Your task to perform on an android device: open app "Google Find My Device" Image 0: 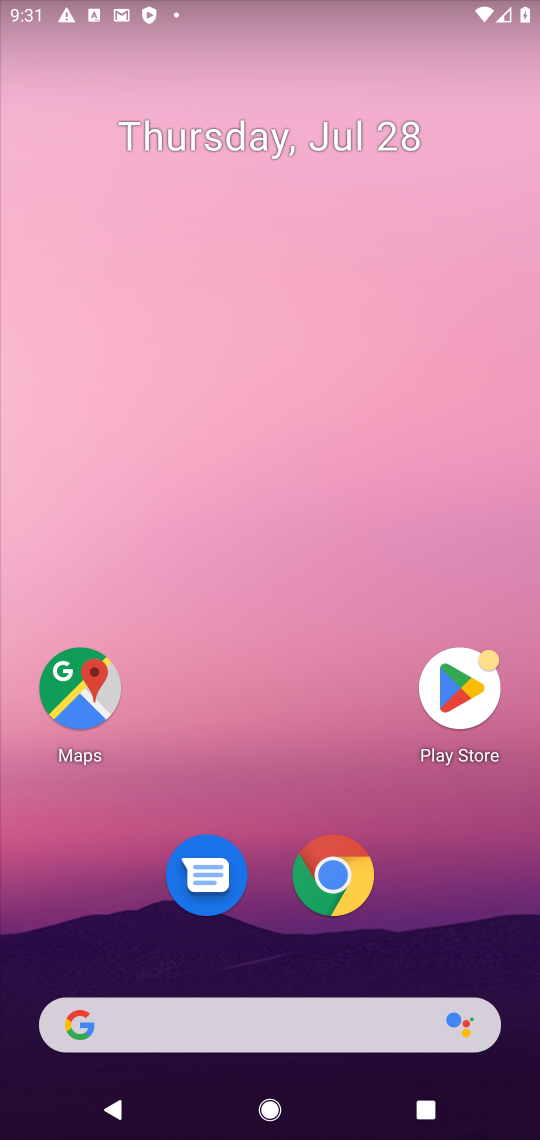
Step 0: drag from (330, 669) to (323, 32)
Your task to perform on an android device: open app "Google Find My Device" Image 1: 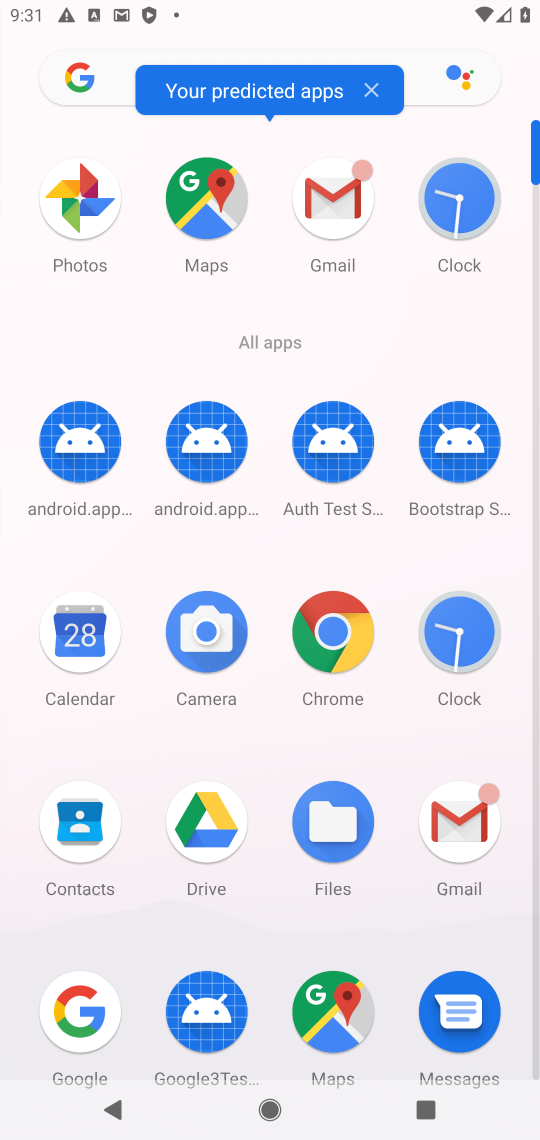
Step 1: drag from (260, 737) to (258, 143)
Your task to perform on an android device: open app "Google Find My Device" Image 2: 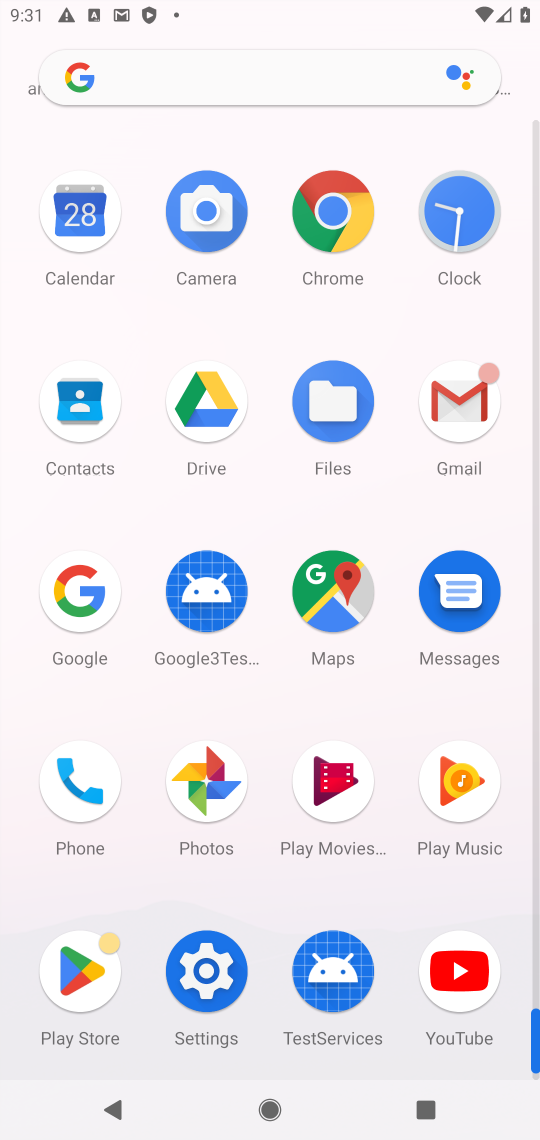
Step 2: click (90, 976)
Your task to perform on an android device: open app "Google Find My Device" Image 3: 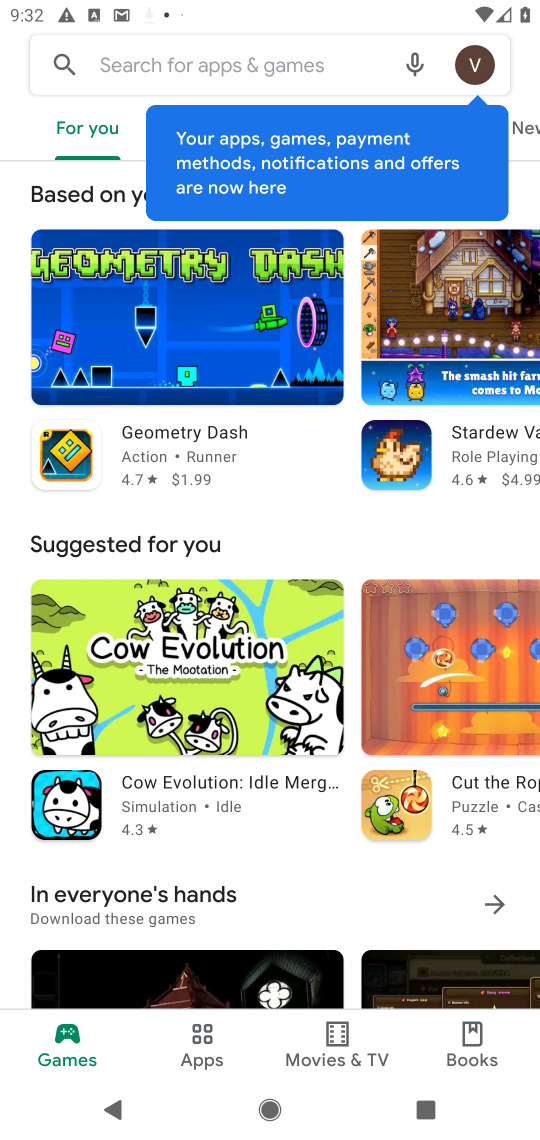
Step 3: click (314, 63)
Your task to perform on an android device: open app "Google Find My Device" Image 4: 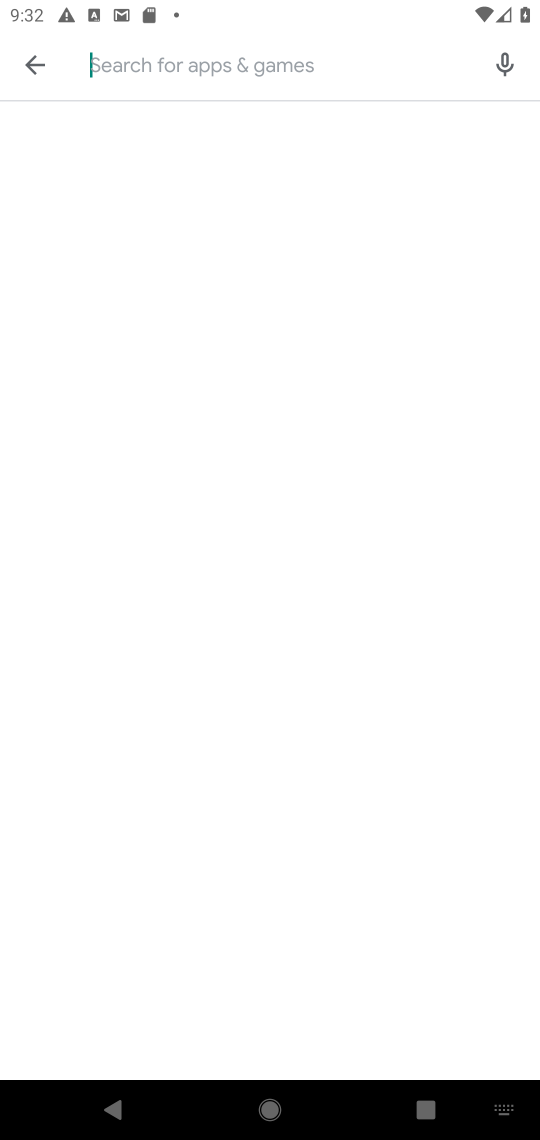
Step 4: type "google find my device"
Your task to perform on an android device: open app "Google Find My Device" Image 5: 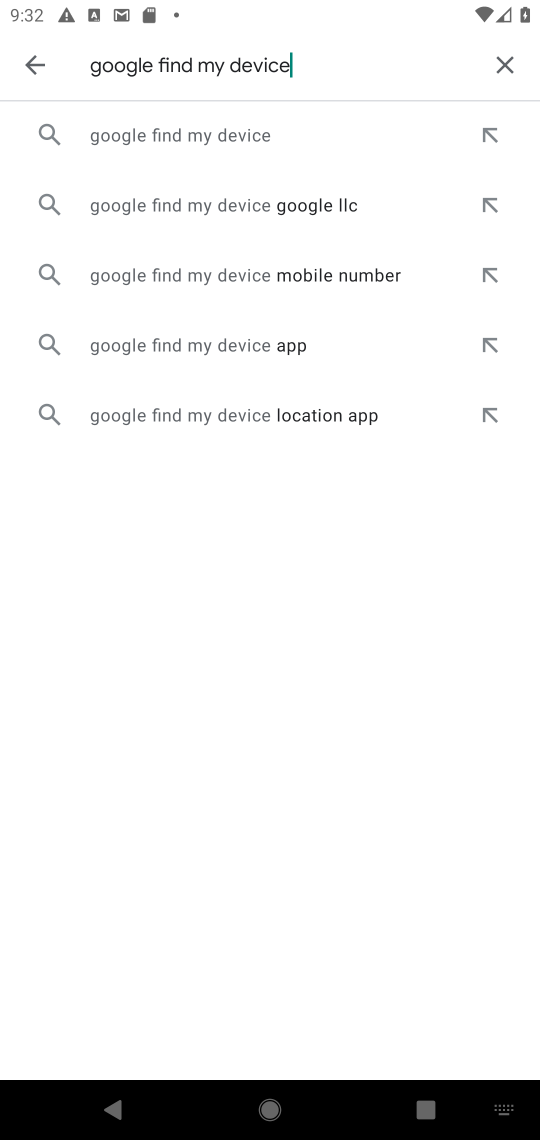
Step 5: click (237, 126)
Your task to perform on an android device: open app "Google Find My Device" Image 6: 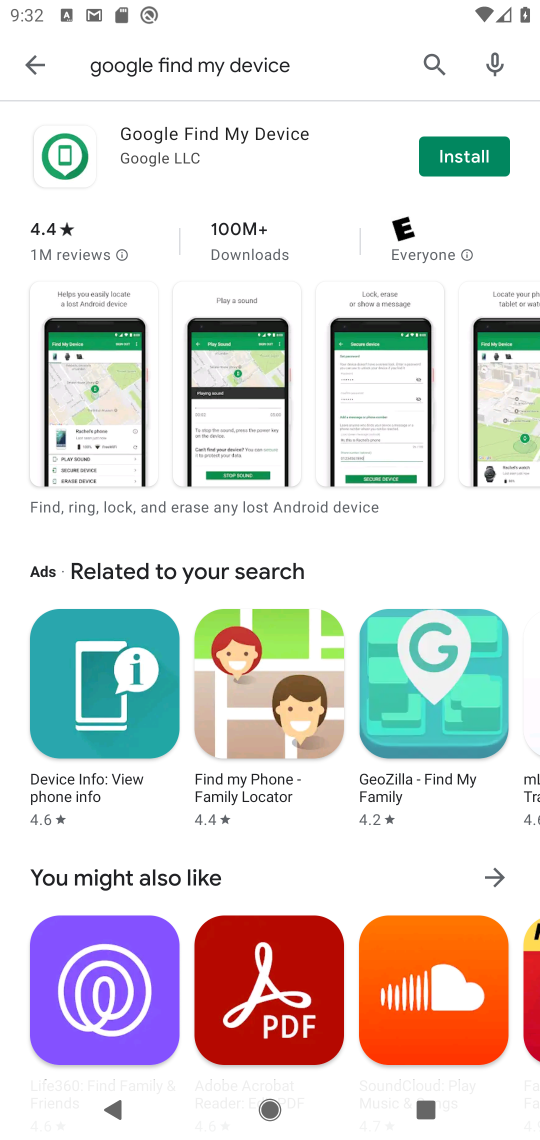
Step 6: task complete